Your task to perform on an android device: Open Yahoo.com Image 0: 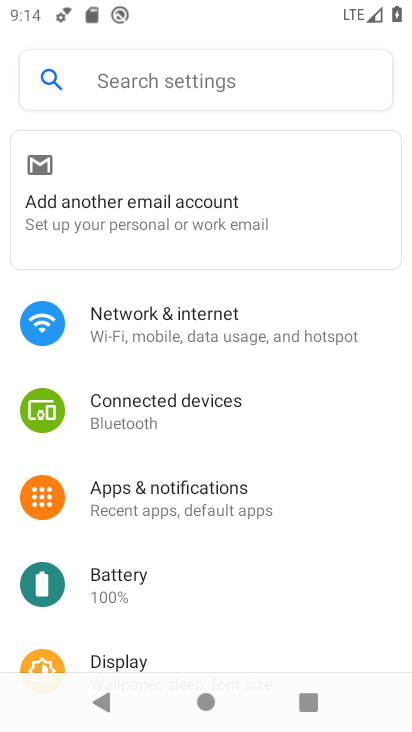
Step 0: press home button
Your task to perform on an android device: Open Yahoo.com Image 1: 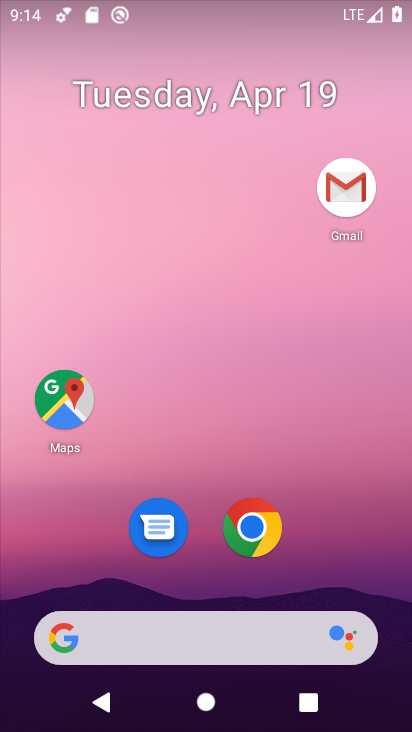
Step 1: click (280, 536)
Your task to perform on an android device: Open Yahoo.com Image 2: 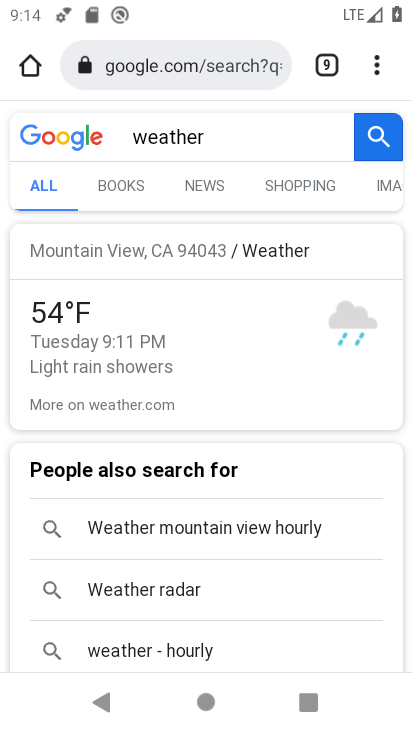
Step 2: click (244, 121)
Your task to perform on an android device: Open Yahoo.com Image 3: 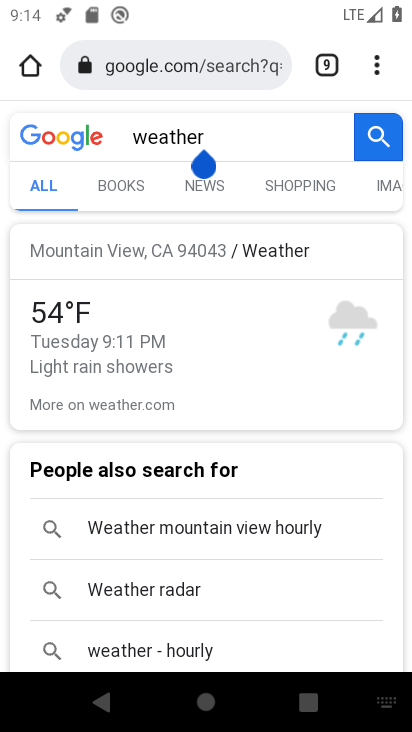
Step 3: click (247, 150)
Your task to perform on an android device: Open Yahoo.com Image 4: 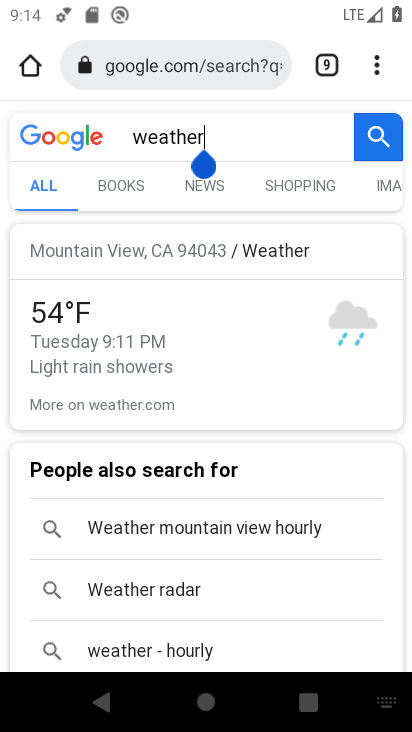
Step 4: click (221, 64)
Your task to perform on an android device: Open Yahoo.com Image 5: 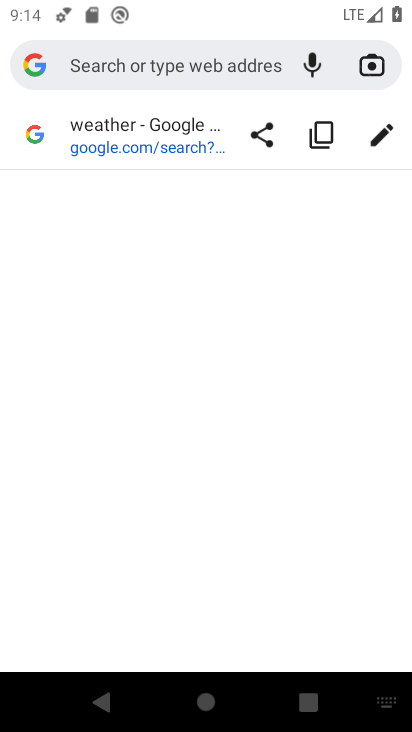
Step 5: type "yahoo.com"
Your task to perform on an android device: Open Yahoo.com Image 6: 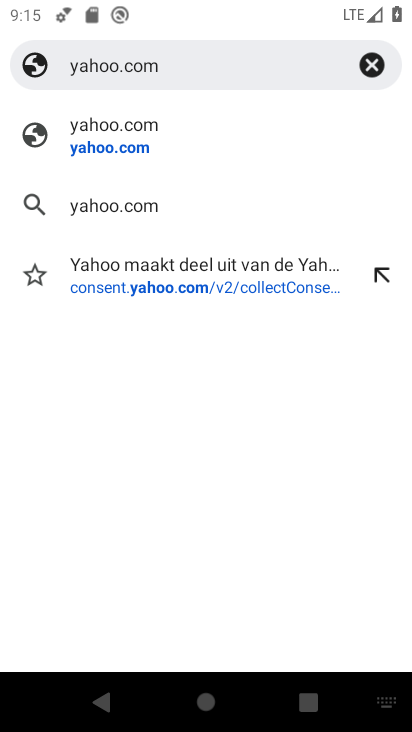
Step 6: click (126, 133)
Your task to perform on an android device: Open Yahoo.com Image 7: 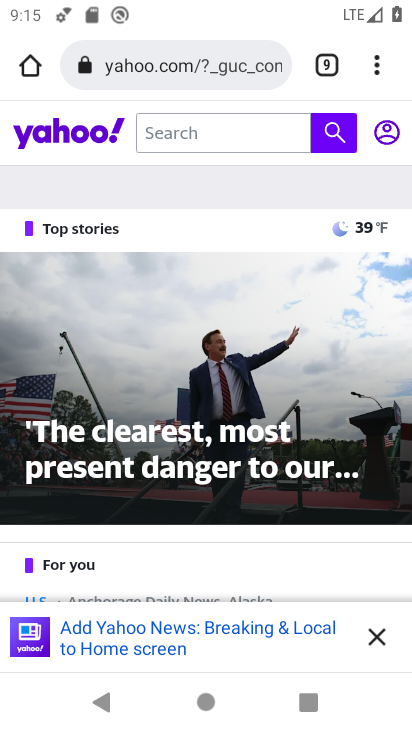
Step 7: task complete